Your task to perform on an android device: Open eBay Image 0: 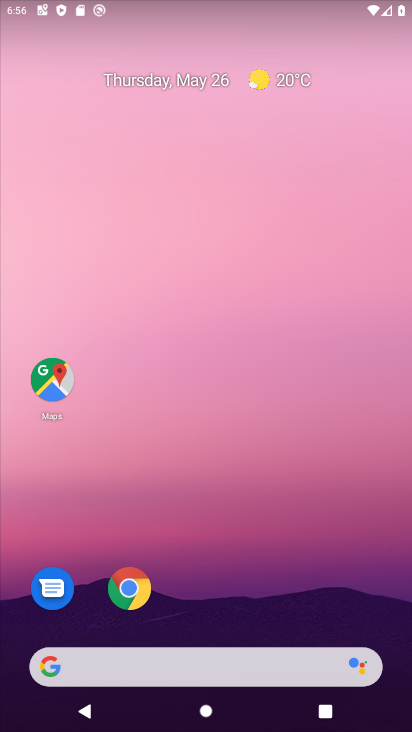
Step 0: drag from (394, 635) to (256, 2)
Your task to perform on an android device: Open eBay Image 1: 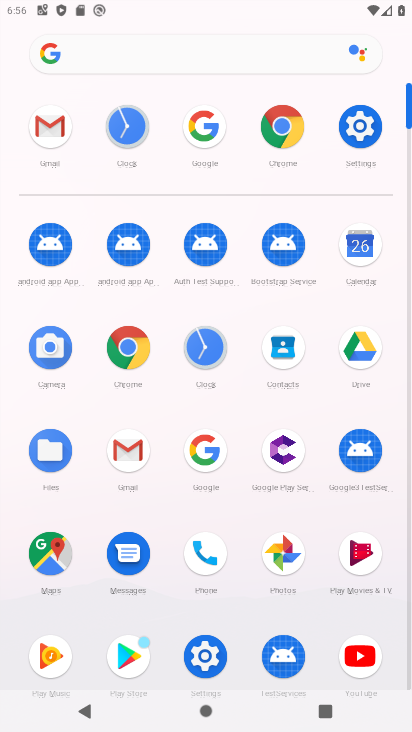
Step 1: click (197, 470)
Your task to perform on an android device: Open eBay Image 2: 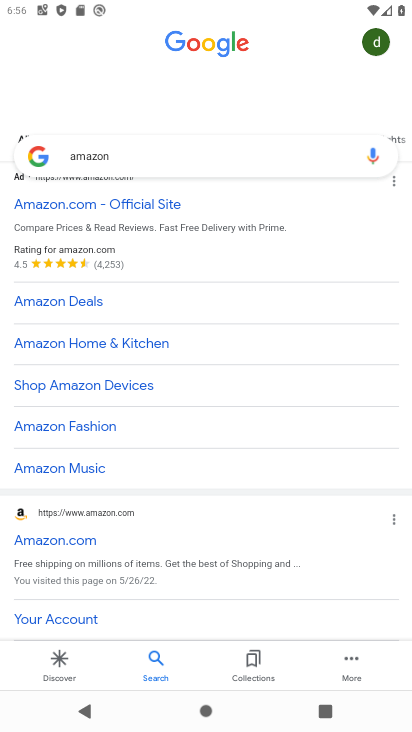
Step 2: press back button
Your task to perform on an android device: Open eBay Image 3: 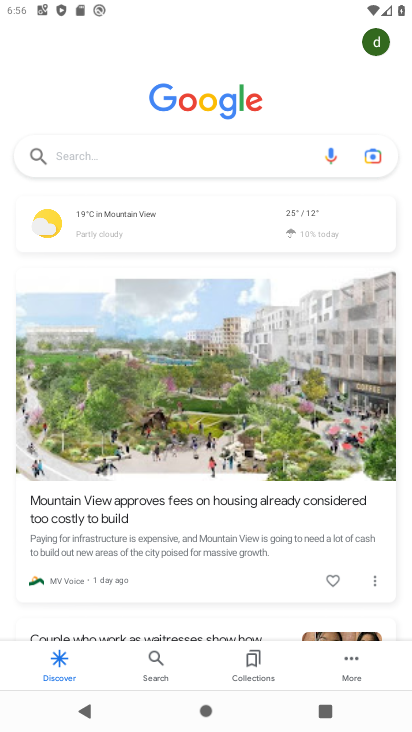
Step 3: click (167, 149)
Your task to perform on an android device: Open eBay Image 4: 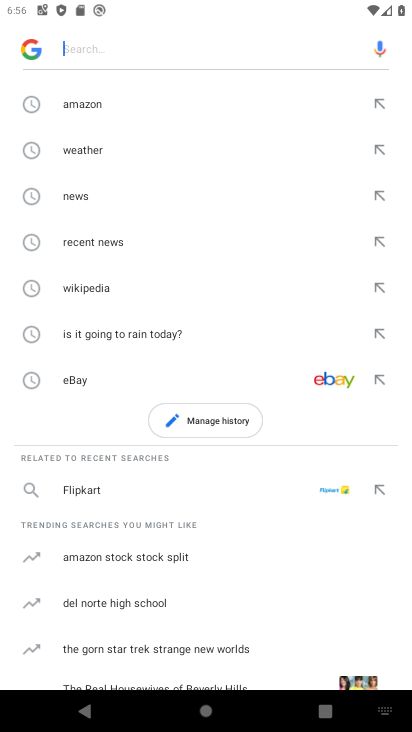
Step 4: click (79, 384)
Your task to perform on an android device: Open eBay Image 5: 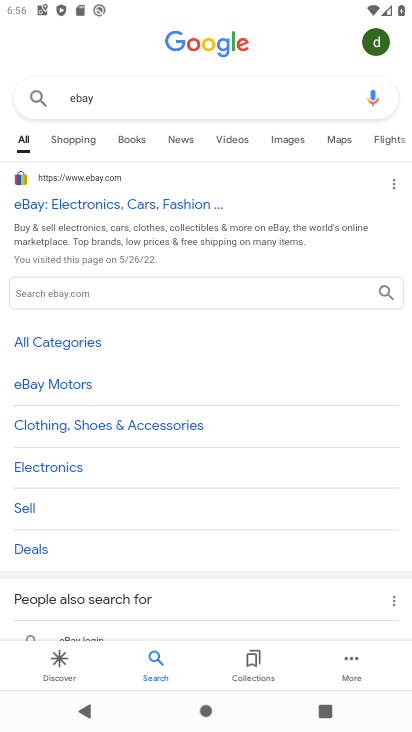
Step 5: task complete